Your task to perform on an android device: Open the stopwatch Image 0: 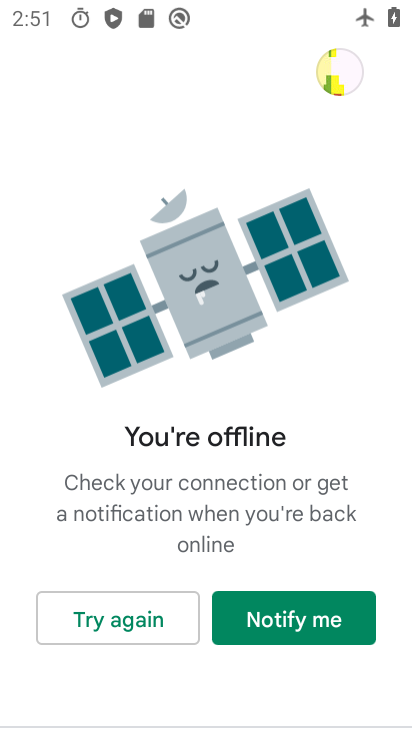
Step 0: press home button
Your task to perform on an android device: Open the stopwatch Image 1: 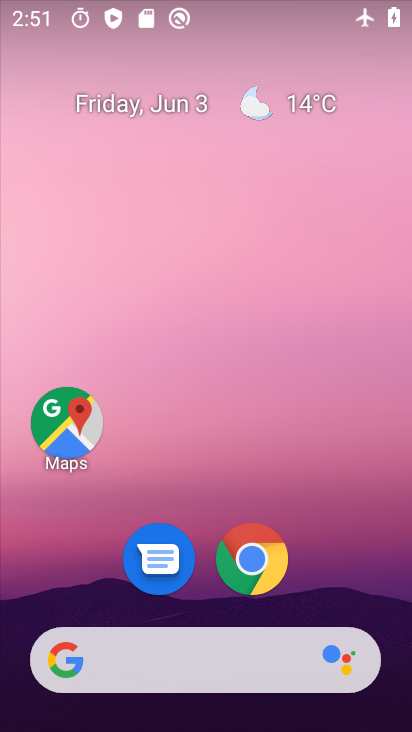
Step 1: drag from (230, 618) to (120, 44)
Your task to perform on an android device: Open the stopwatch Image 2: 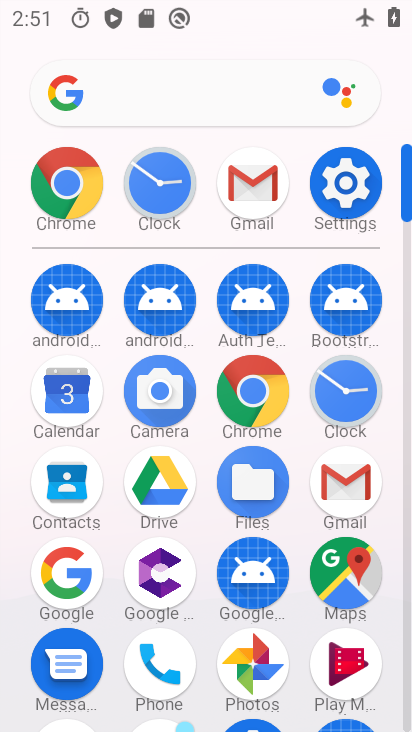
Step 2: click (341, 411)
Your task to perform on an android device: Open the stopwatch Image 3: 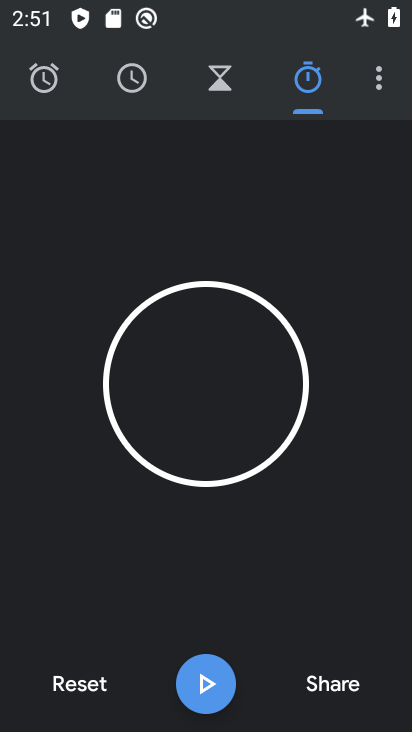
Step 3: task complete